Your task to perform on an android device: toggle wifi Image 0: 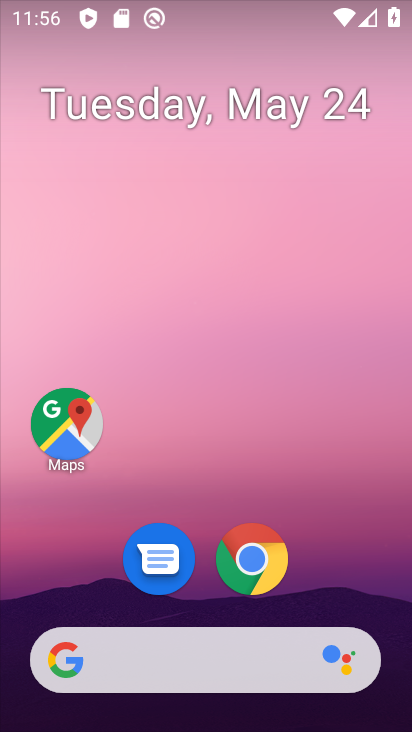
Step 0: drag from (389, 622) to (313, 167)
Your task to perform on an android device: toggle wifi Image 1: 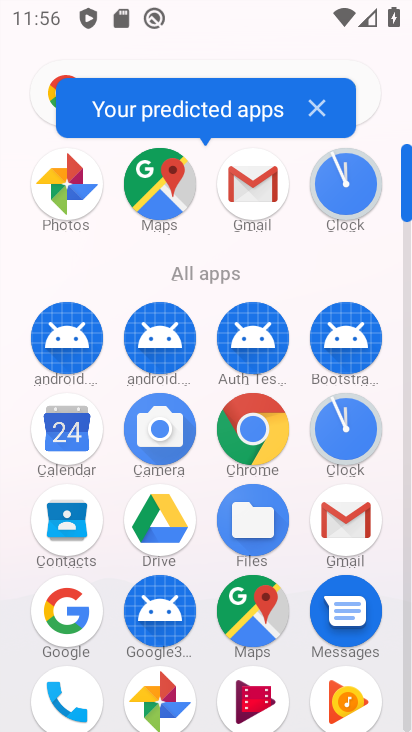
Step 1: click (409, 706)
Your task to perform on an android device: toggle wifi Image 2: 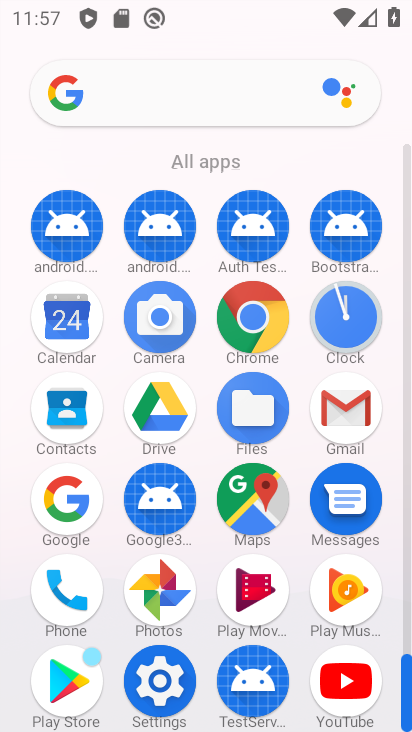
Step 2: click (161, 678)
Your task to perform on an android device: toggle wifi Image 3: 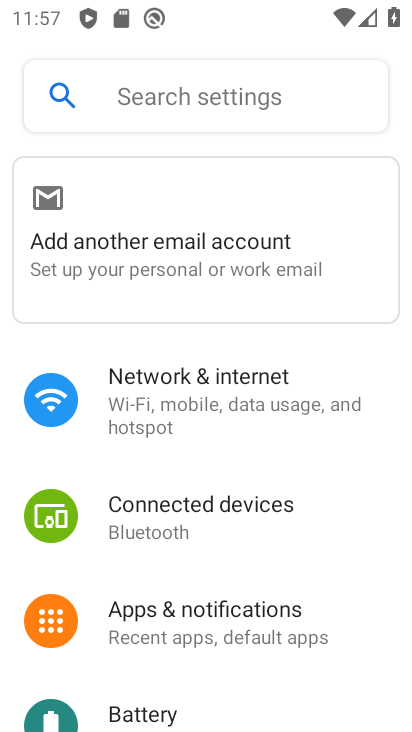
Step 3: click (165, 377)
Your task to perform on an android device: toggle wifi Image 4: 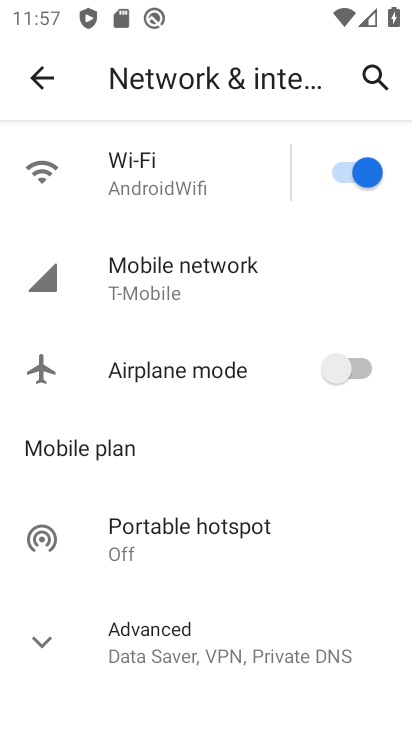
Step 4: click (33, 637)
Your task to perform on an android device: toggle wifi Image 5: 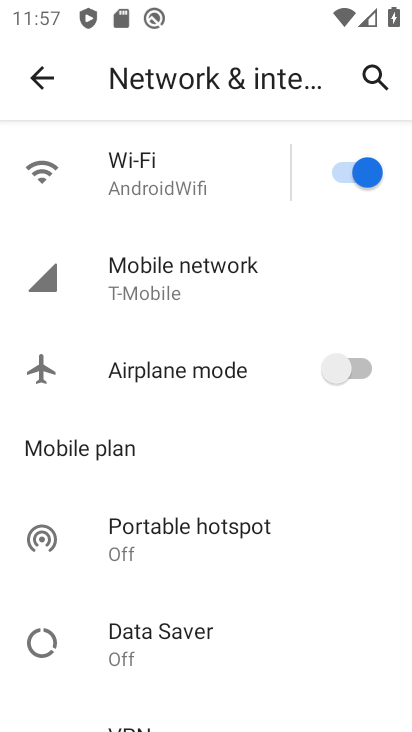
Step 5: click (336, 168)
Your task to perform on an android device: toggle wifi Image 6: 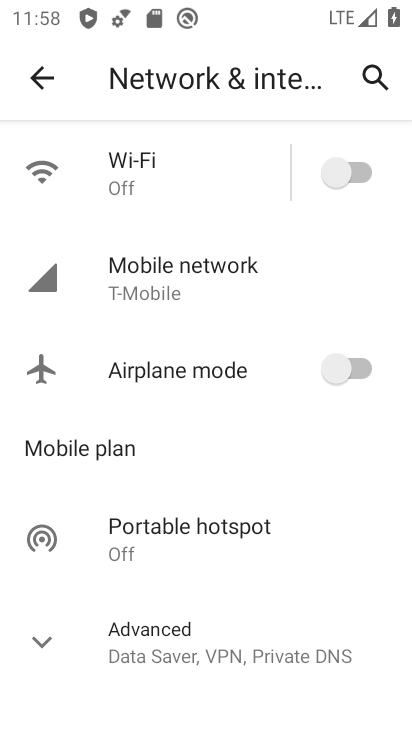
Step 6: task complete